Your task to perform on an android device: Add razer deathadder to the cart on costco, then select checkout. Image 0: 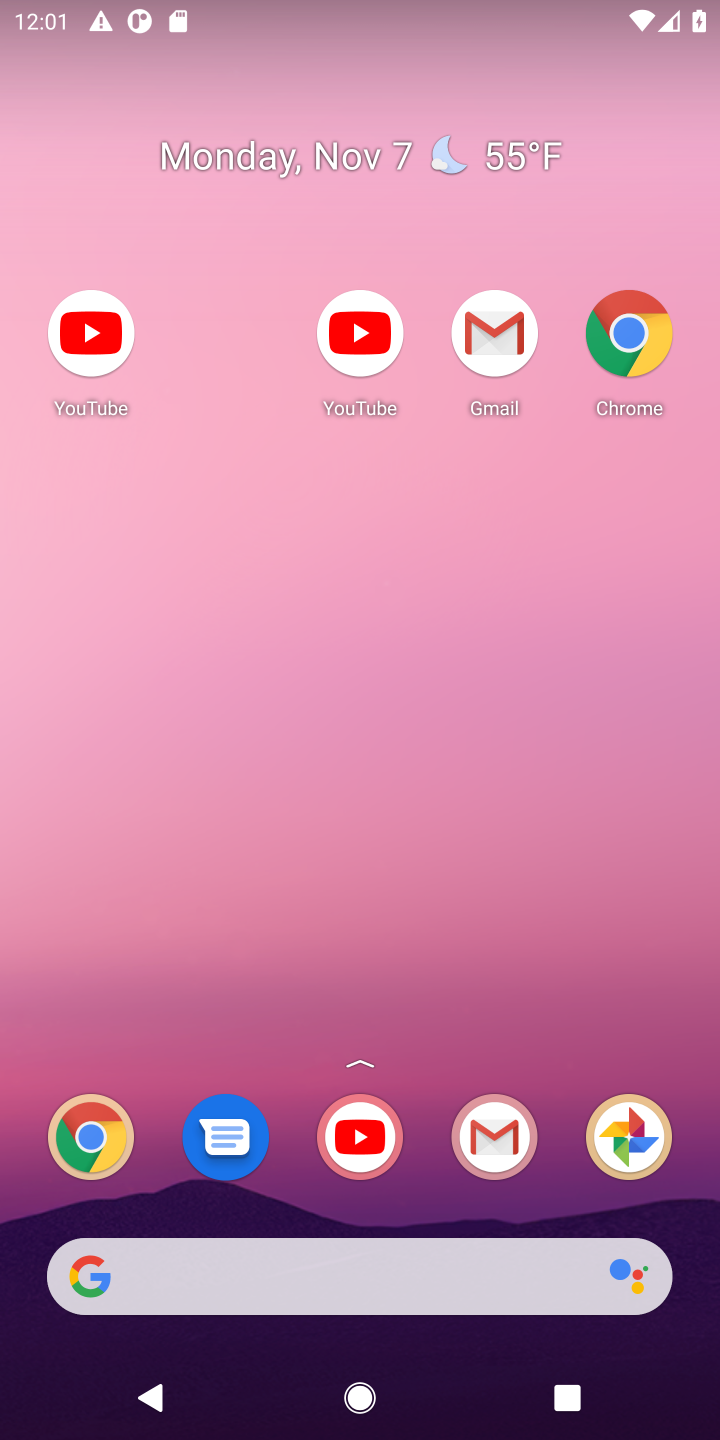
Step 0: drag from (423, 1218) to (378, 272)
Your task to perform on an android device: Add razer deathadder to the cart on costco, then select checkout. Image 1: 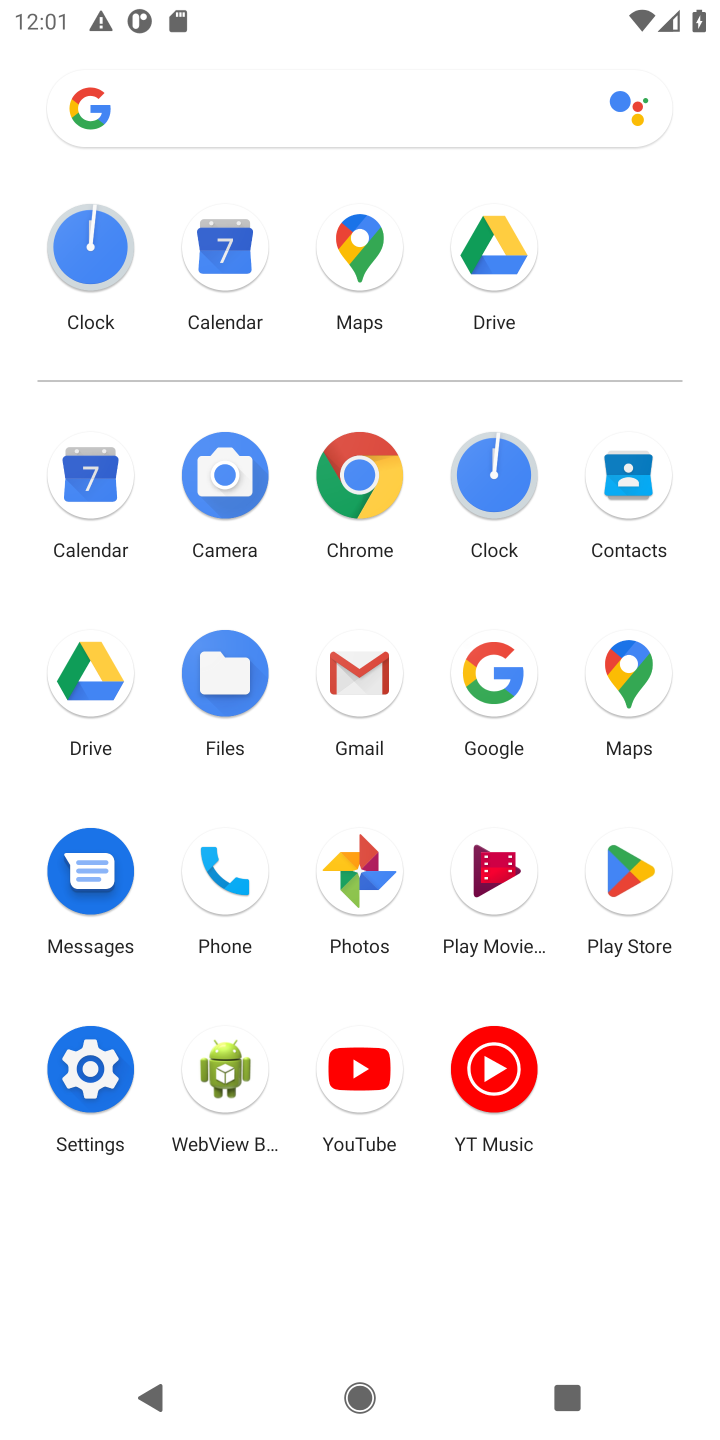
Step 1: click (352, 481)
Your task to perform on an android device: Add razer deathadder to the cart on costco, then select checkout. Image 2: 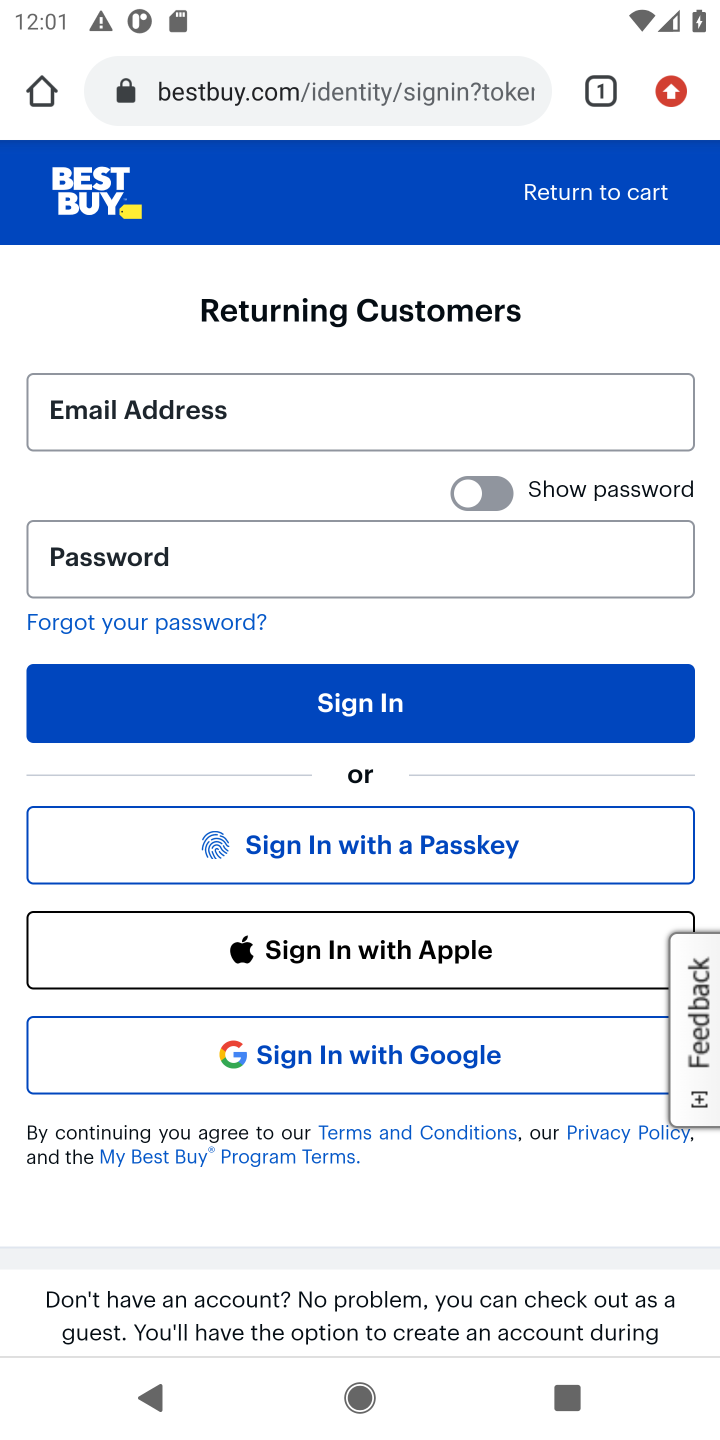
Step 2: click (346, 87)
Your task to perform on an android device: Add razer deathadder to the cart on costco, then select checkout. Image 3: 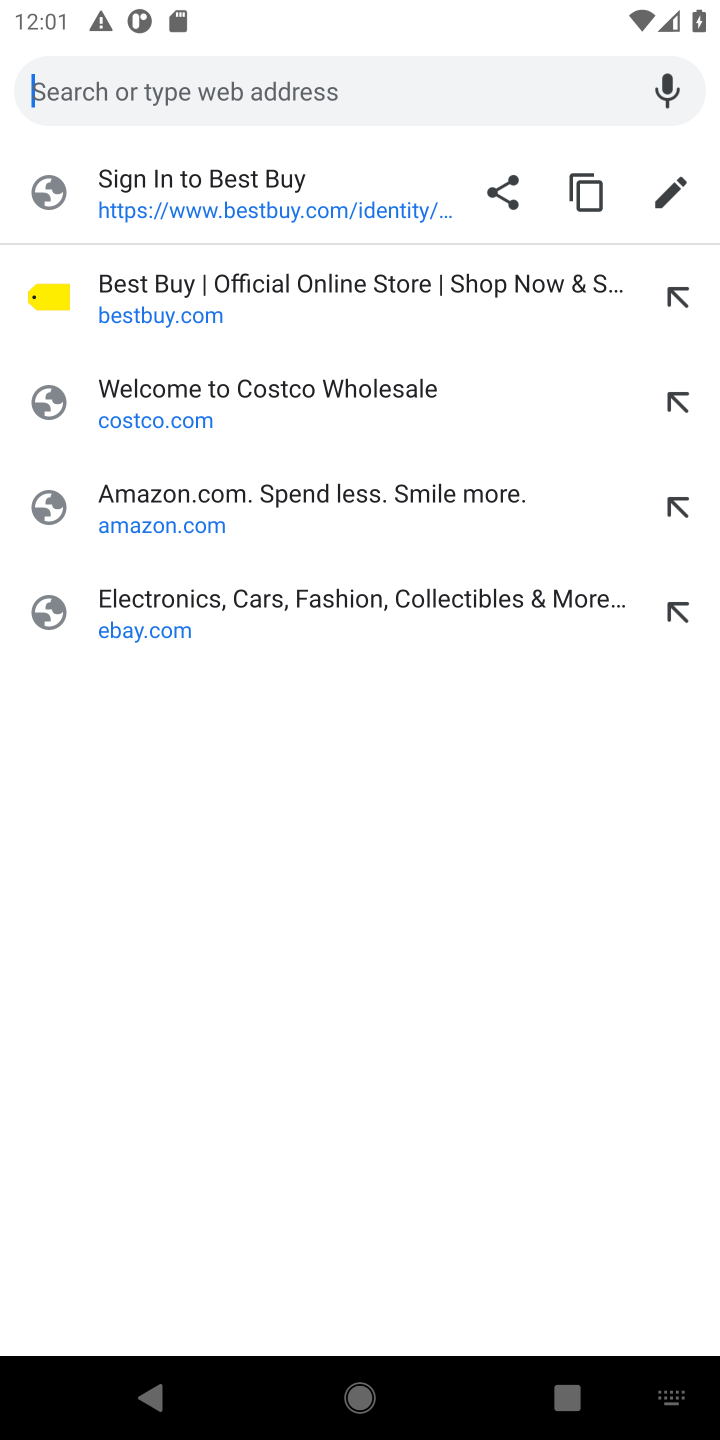
Step 3: type "costco.com"
Your task to perform on an android device: Add razer deathadder to the cart on costco, then select checkout. Image 4: 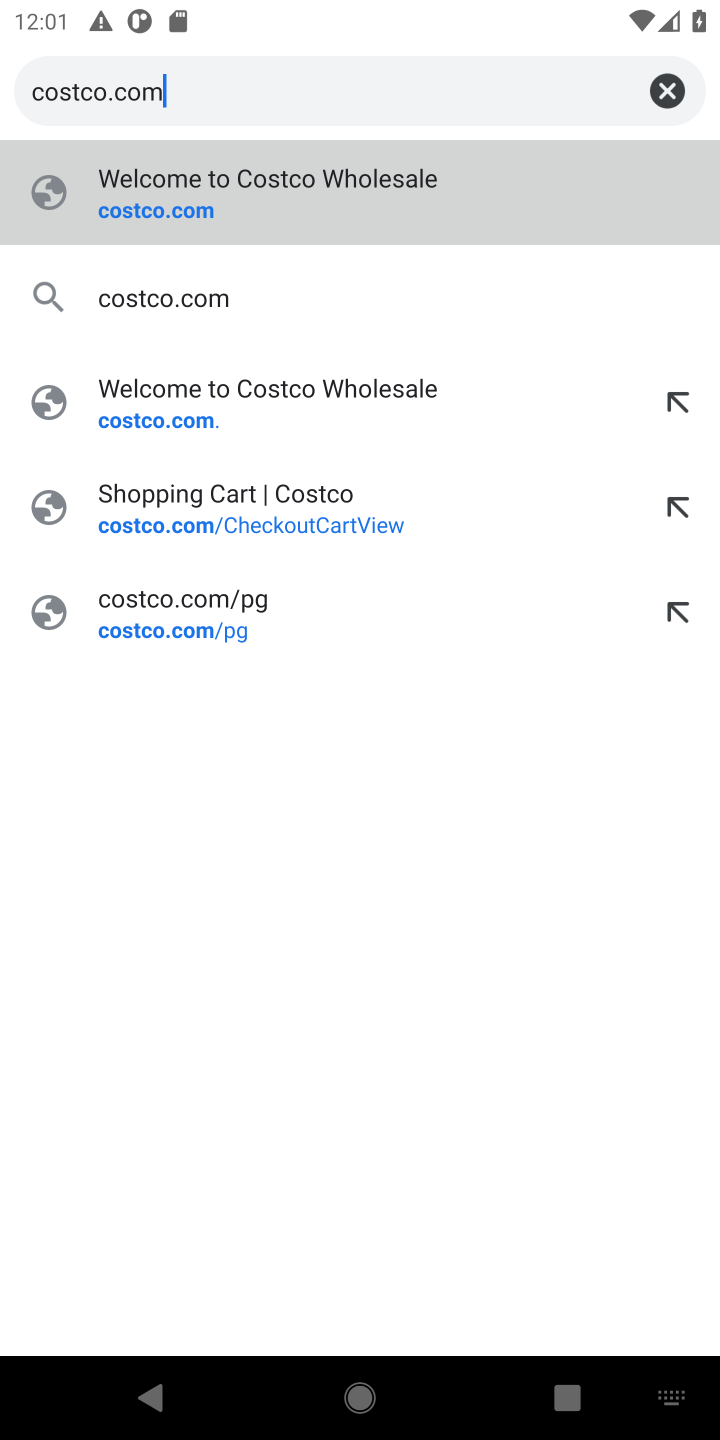
Step 4: click (133, 202)
Your task to perform on an android device: Add razer deathadder to the cart on costco, then select checkout. Image 5: 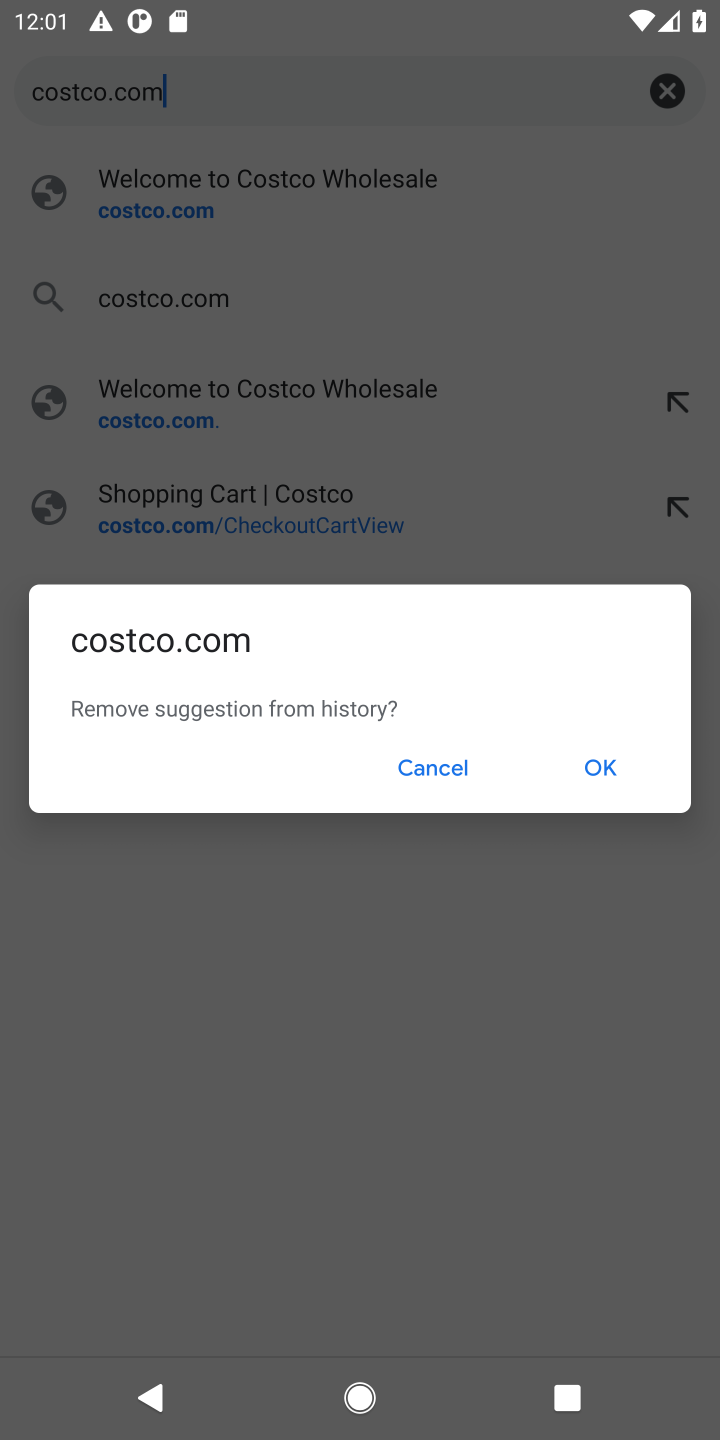
Step 5: click (432, 758)
Your task to perform on an android device: Add razer deathadder to the cart on costco, then select checkout. Image 6: 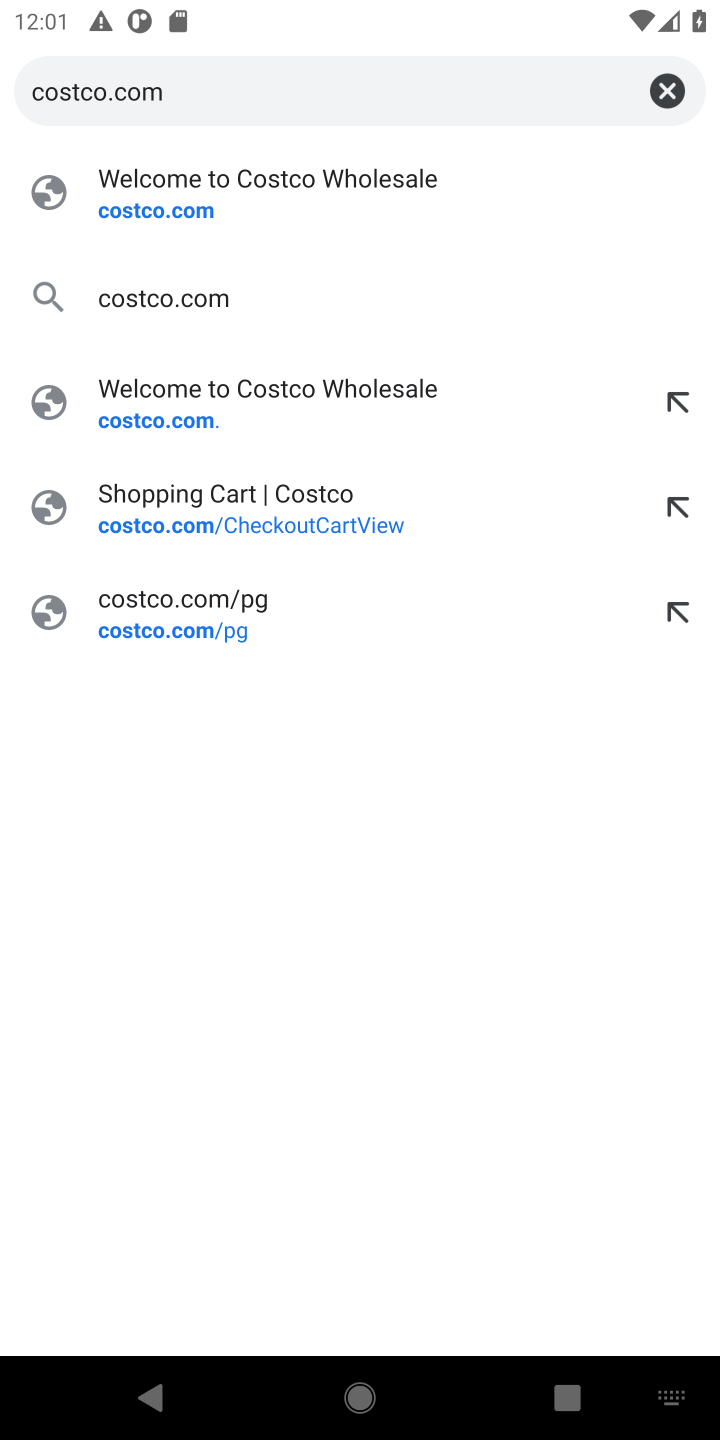
Step 6: press enter
Your task to perform on an android device: Add razer deathadder to the cart on costco, then select checkout. Image 7: 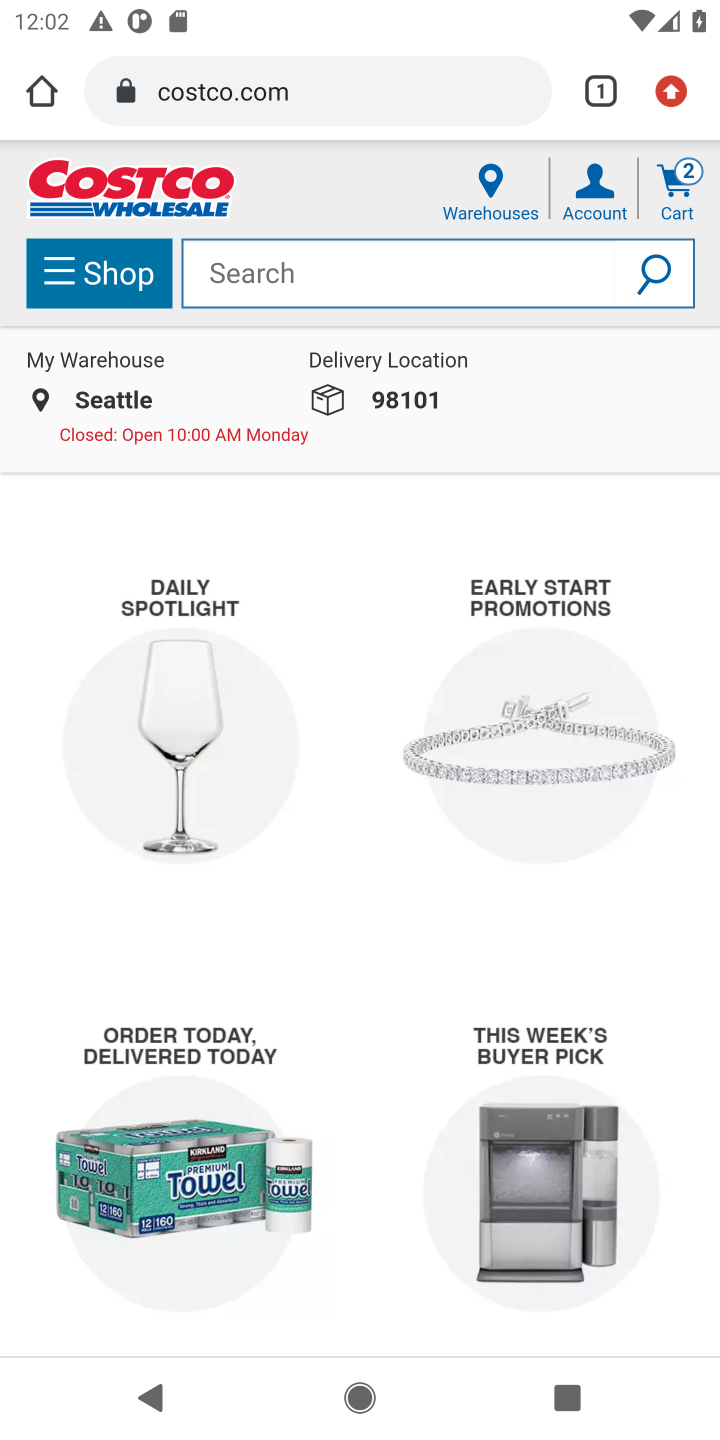
Step 7: click (489, 256)
Your task to perform on an android device: Add razer deathadder to the cart on costco, then select checkout. Image 8: 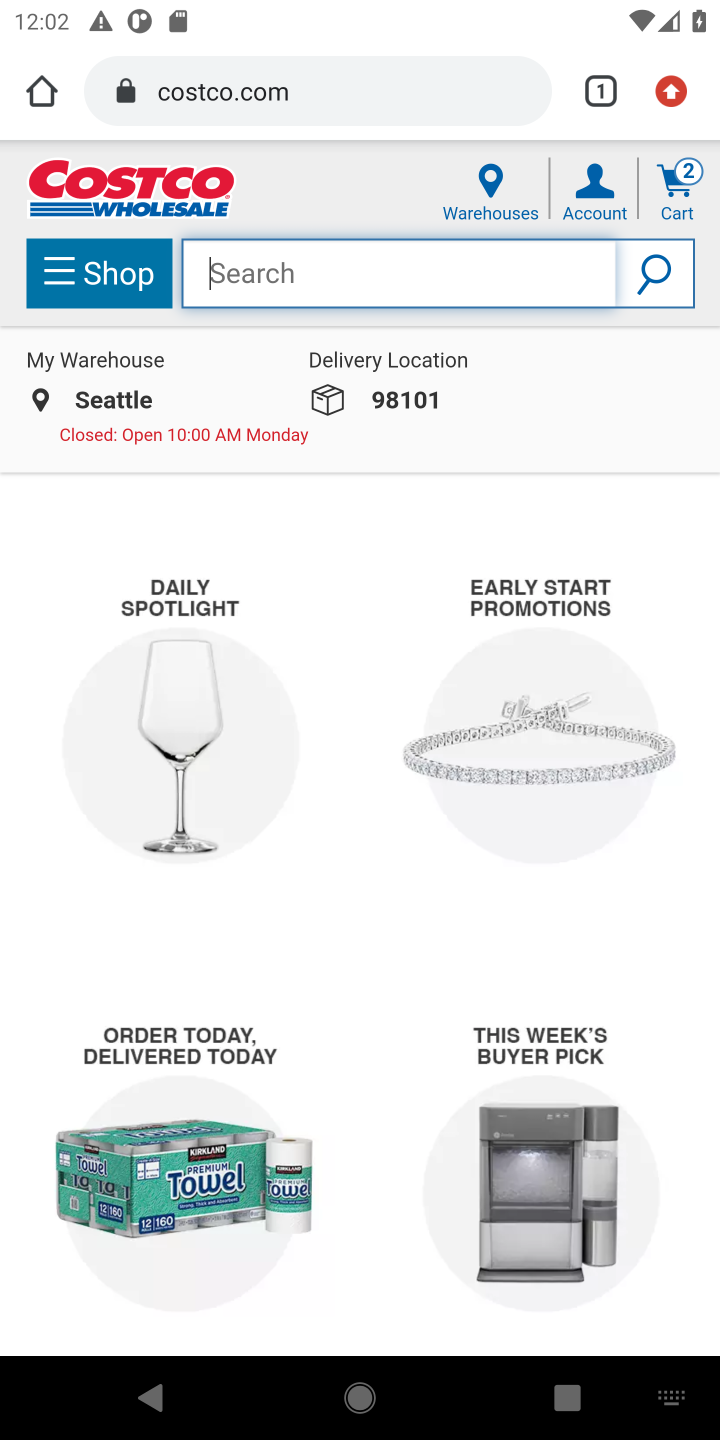
Step 8: type "razer deathadder"
Your task to perform on an android device: Add razer deathadder to the cart on costco, then select checkout. Image 9: 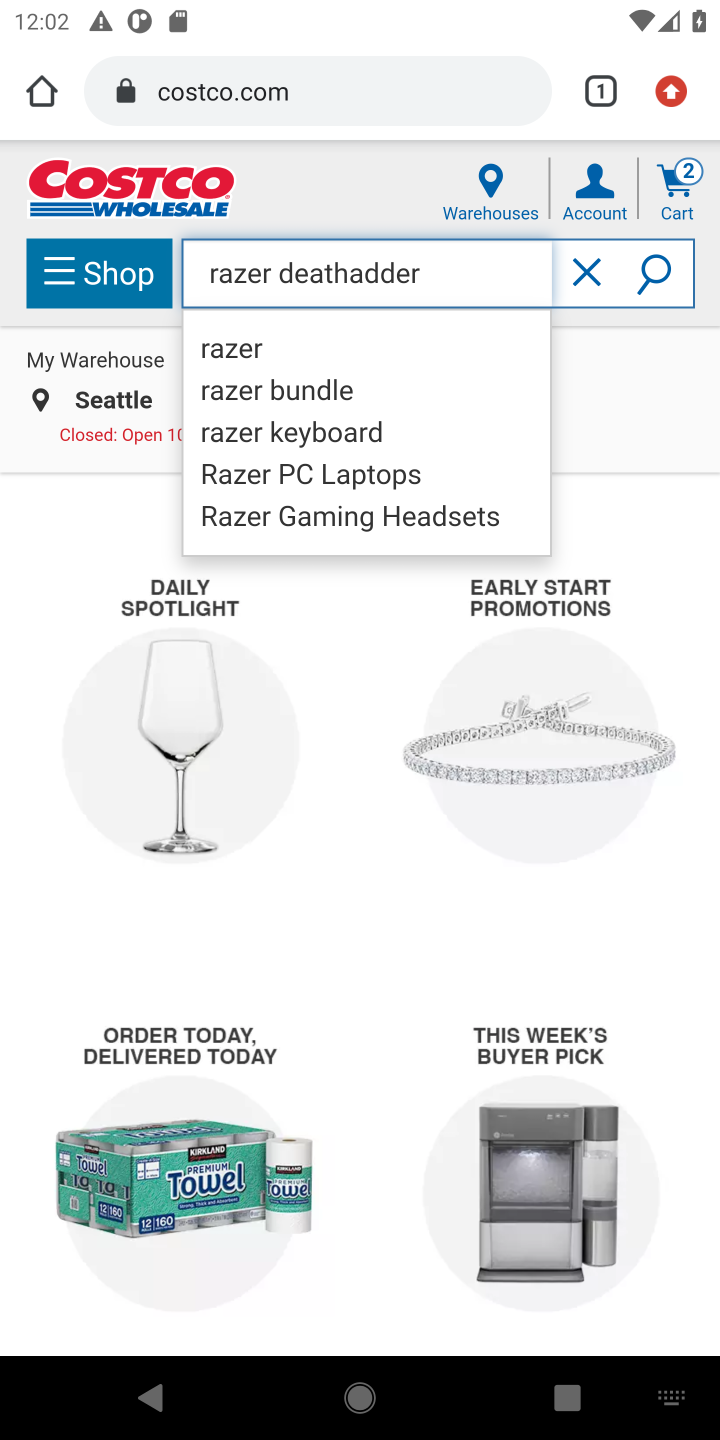
Step 9: press enter
Your task to perform on an android device: Add razer deathadder to the cart on costco, then select checkout. Image 10: 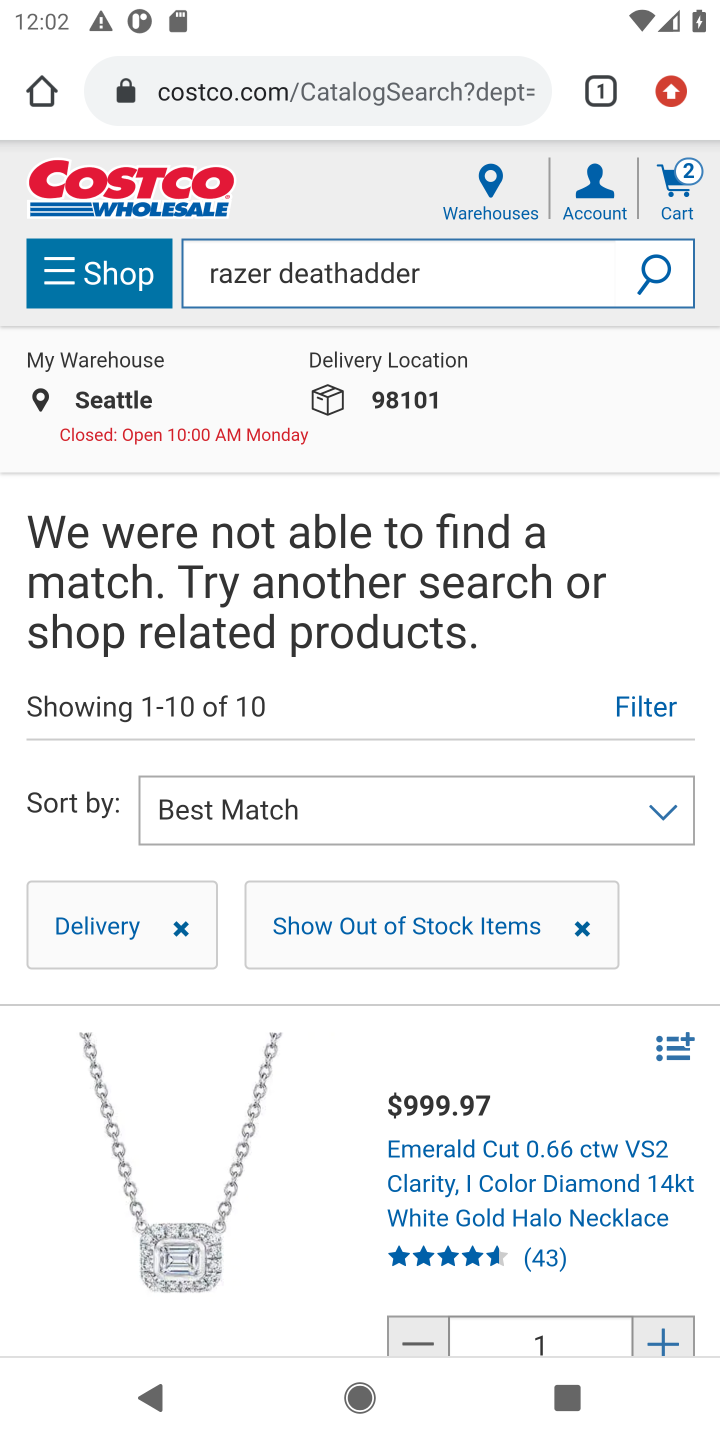
Step 10: task complete